Your task to perform on an android device: Open network settings Image 0: 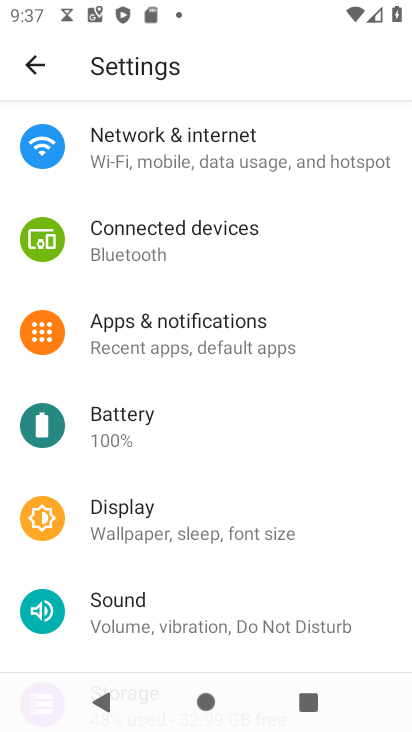
Step 0: click (304, 162)
Your task to perform on an android device: Open network settings Image 1: 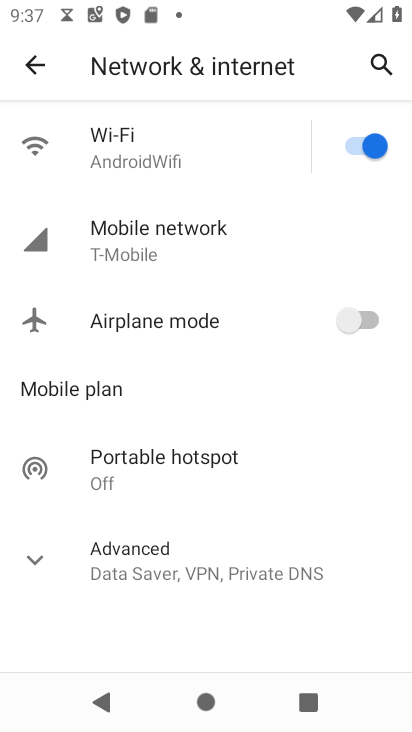
Step 1: click (236, 241)
Your task to perform on an android device: Open network settings Image 2: 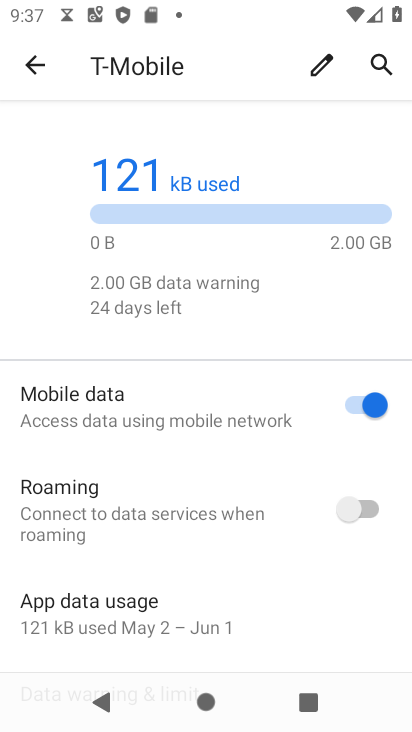
Step 2: task complete